Your task to perform on an android device: Open internet settings Image 0: 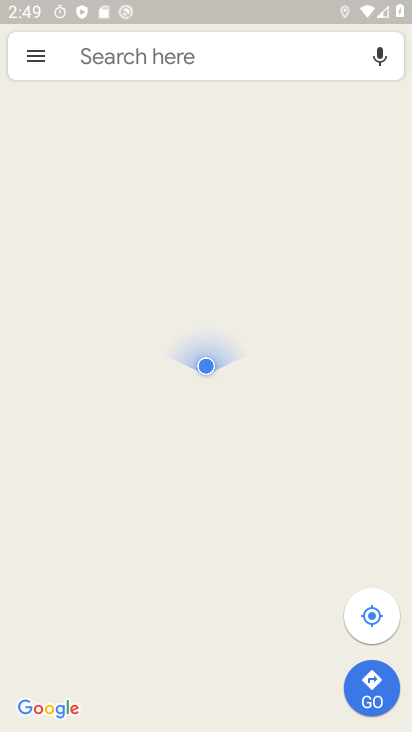
Step 0: press home button
Your task to perform on an android device: Open internet settings Image 1: 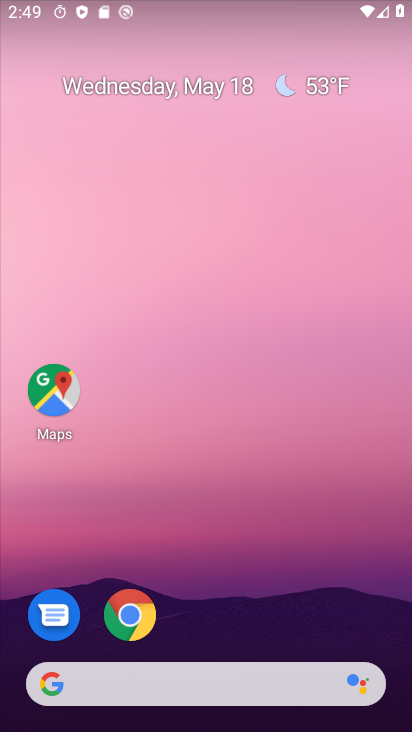
Step 1: drag from (222, 651) to (305, 134)
Your task to perform on an android device: Open internet settings Image 2: 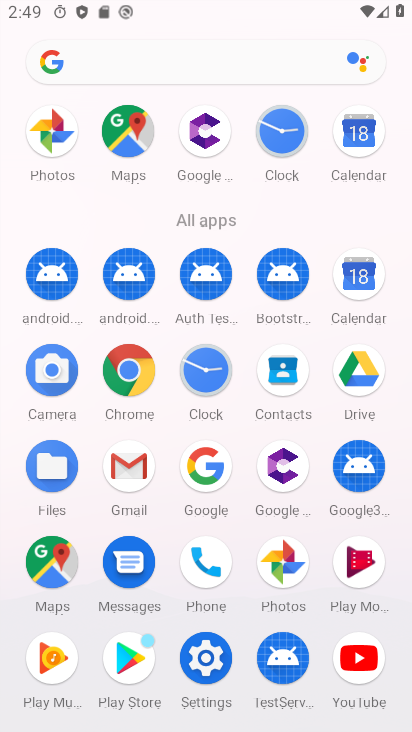
Step 2: click (207, 667)
Your task to perform on an android device: Open internet settings Image 3: 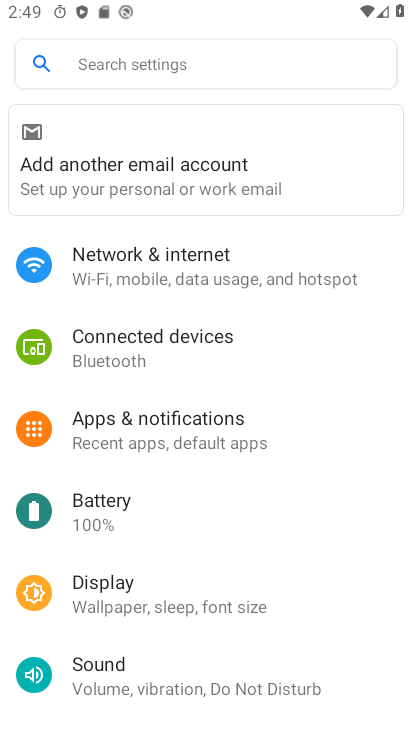
Step 3: click (237, 267)
Your task to perform on an android device: Open internet settings Image 4: 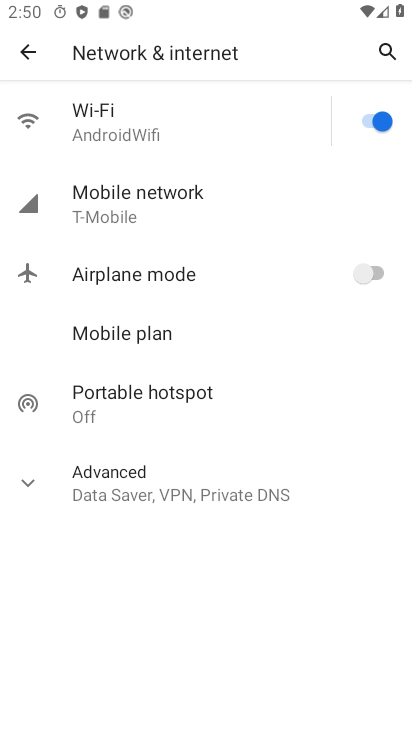
Step 4: click (223, 212)
Your task to perform on an android device: Open internet settings Image 5: 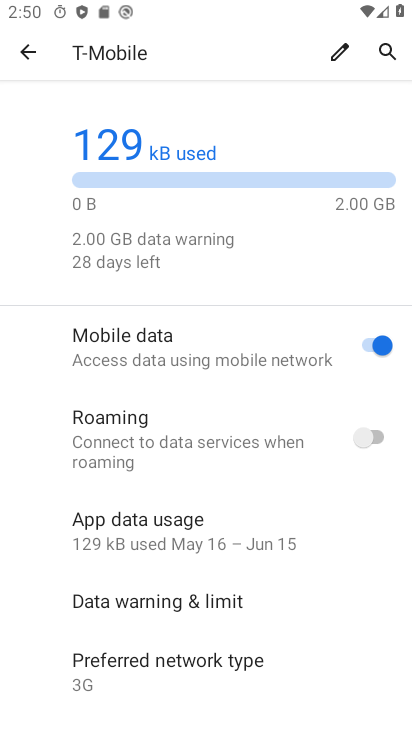
Step 5: task complete